Your task to perform on an android device: turn off notifications settings in the gmail app Image 0: 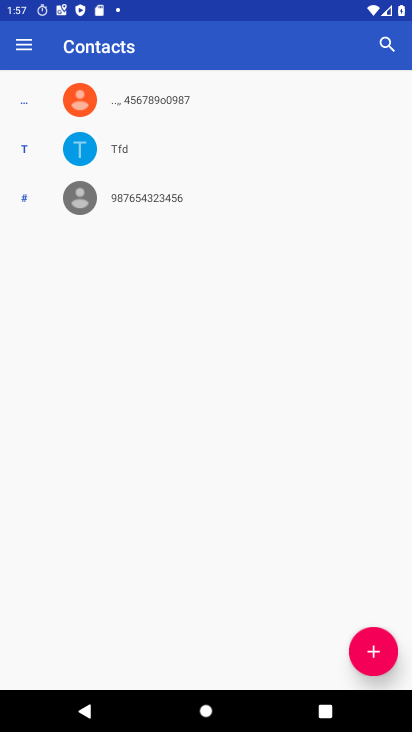
Step 0: press home button
Your task to perform on an android device: turn off notifications settings in the gmail app Image 1: 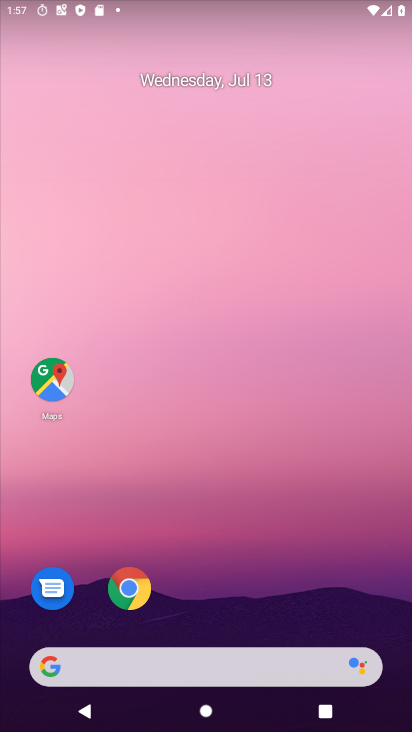
Step 1: drag from (167, 650) to (167, 436)
Your task to perform on an android device: turn off notifications settings in the gmail app Image 2: 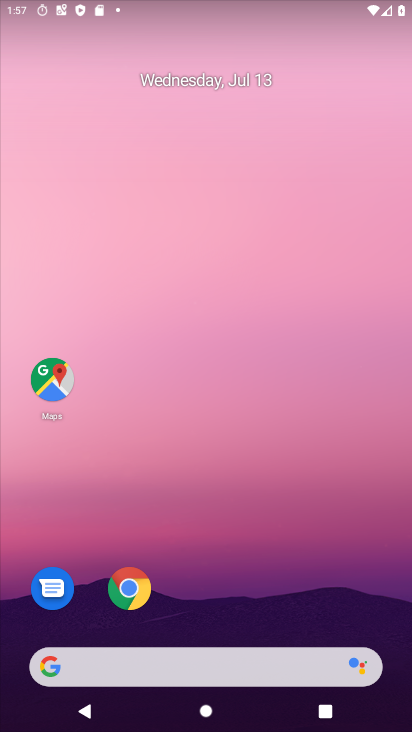
Step 2: drag from (219, 647) to (200, 275)
Your task to perform on an android device: turn off notifications settings in the gmail app Image 3: 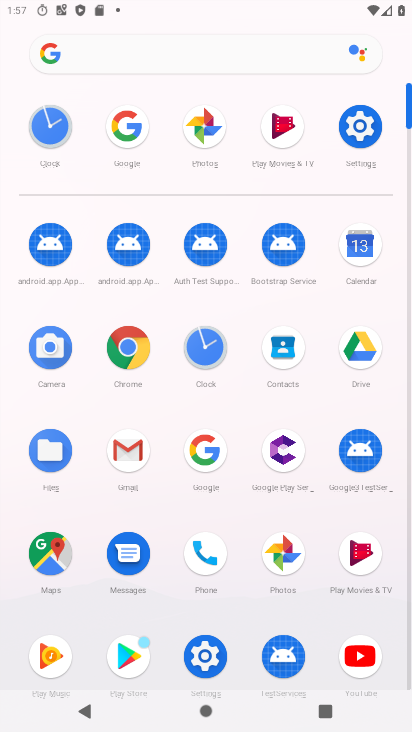
Step 3: click (115, 458)
Your task to perform on an android device: turn off notifications settings in the gmail app Image 4: 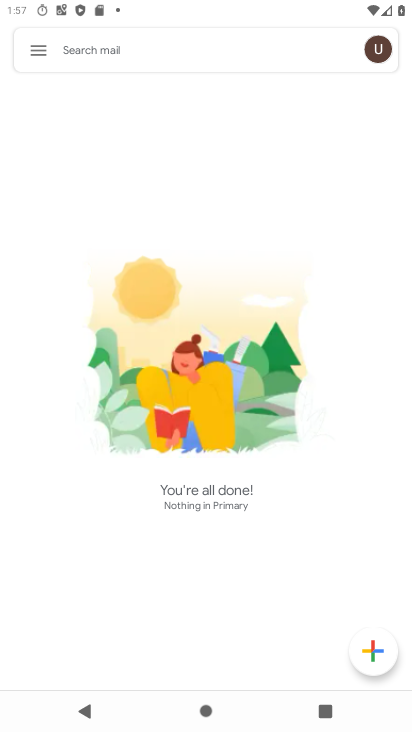
Step 4: click (34, 51)
Your task to perform on an android device: turn off notifications settings in the gmail app Image 5: 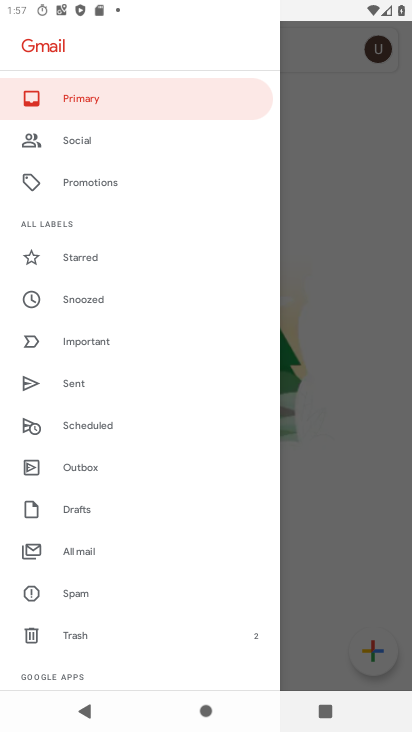
Step 5: drag from (84, 562) to (84, 370)
Your task to perform on an android device: turn off notifications settings in the gmail app Image 6: 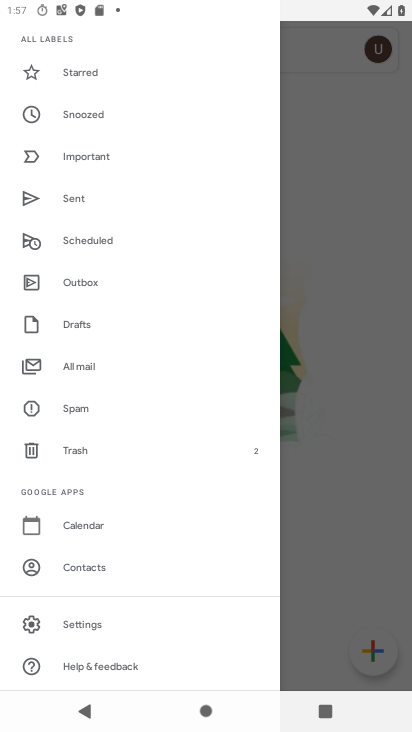
Step 6: click (89, 620)
Your task to perform on an android device: turn off notifications settings in the gmail app Image 7: 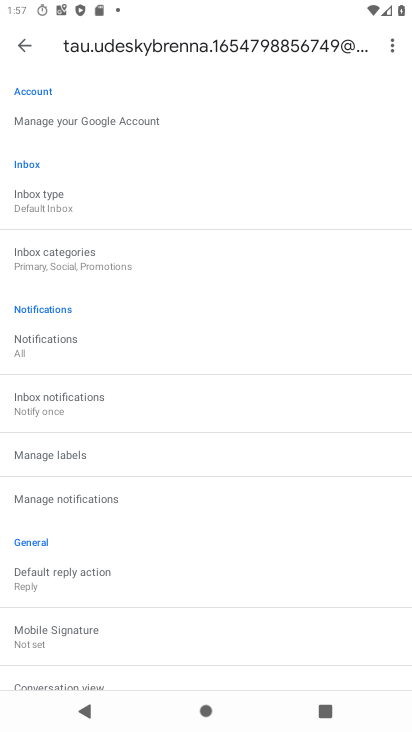
Step 7: click (39, 491)
Your task to perform on an android device: turn off notifications settings in the gmail app Image 8: 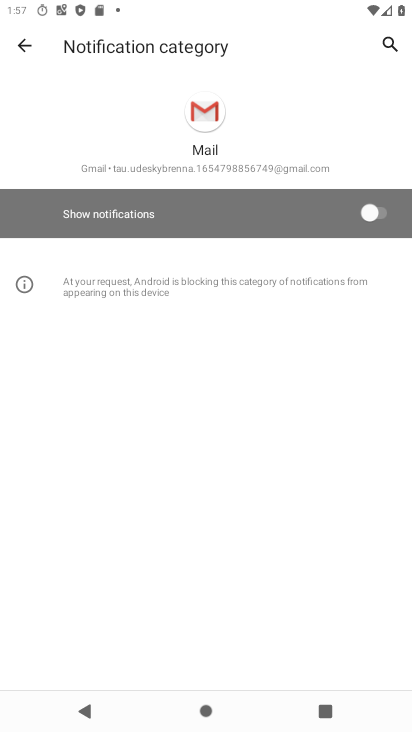
Step 8: task complete